Your task to perform on an android device: Check my gmail inbox Image 0: 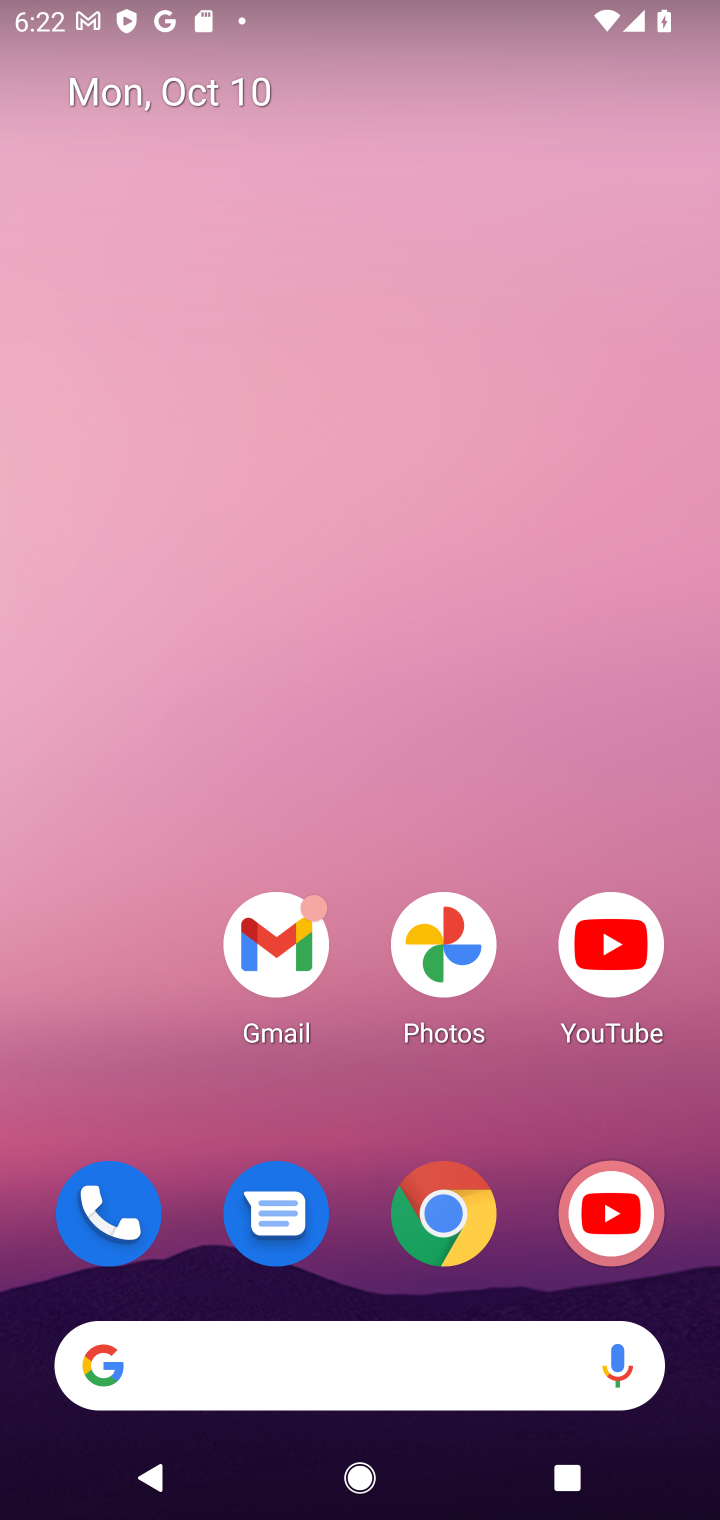
Step 0: drag from (367, 956) to (341, 433)
Your task to perform on an android device: Check my gmail inbox Image 1: 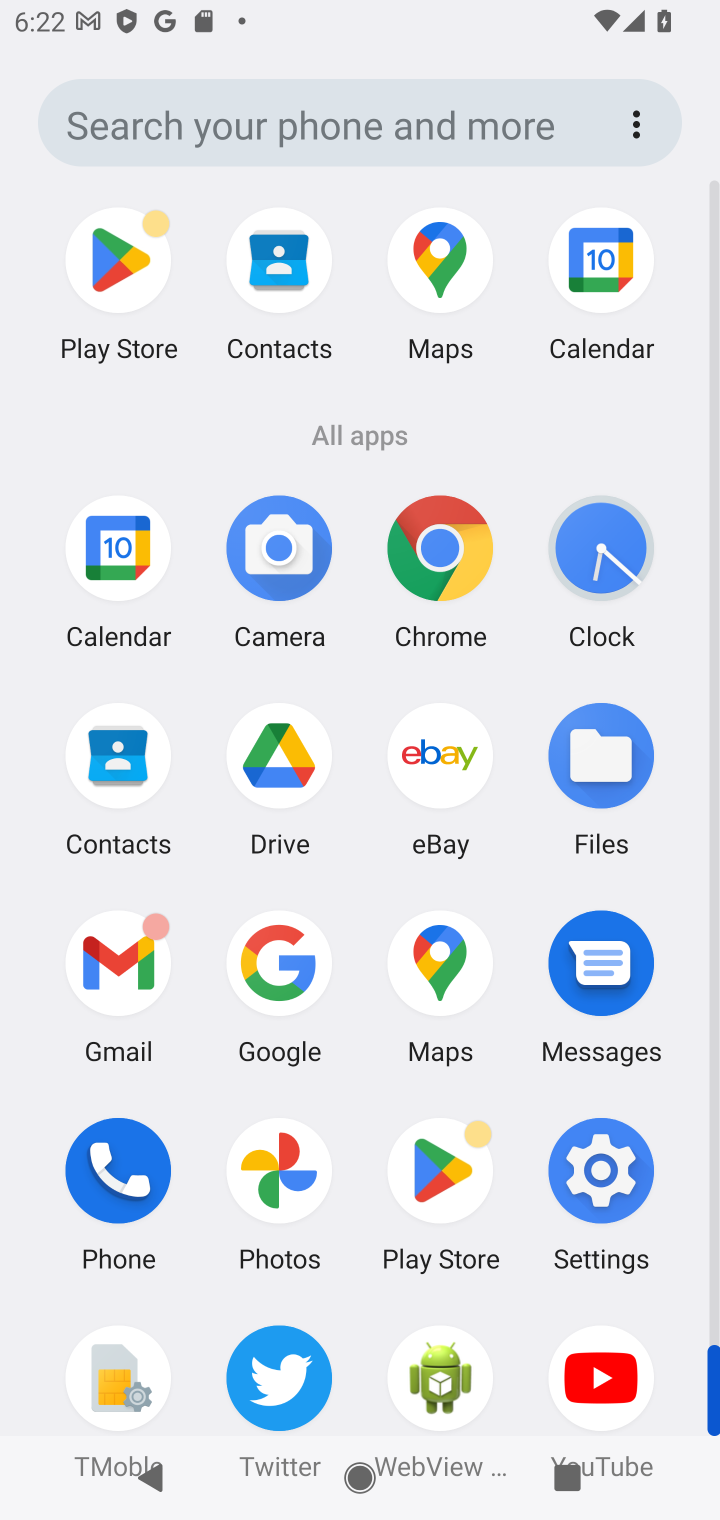
Step 1: click (138, 936)
Your task to perform on an android device: Check my gmail inbox Image 2: 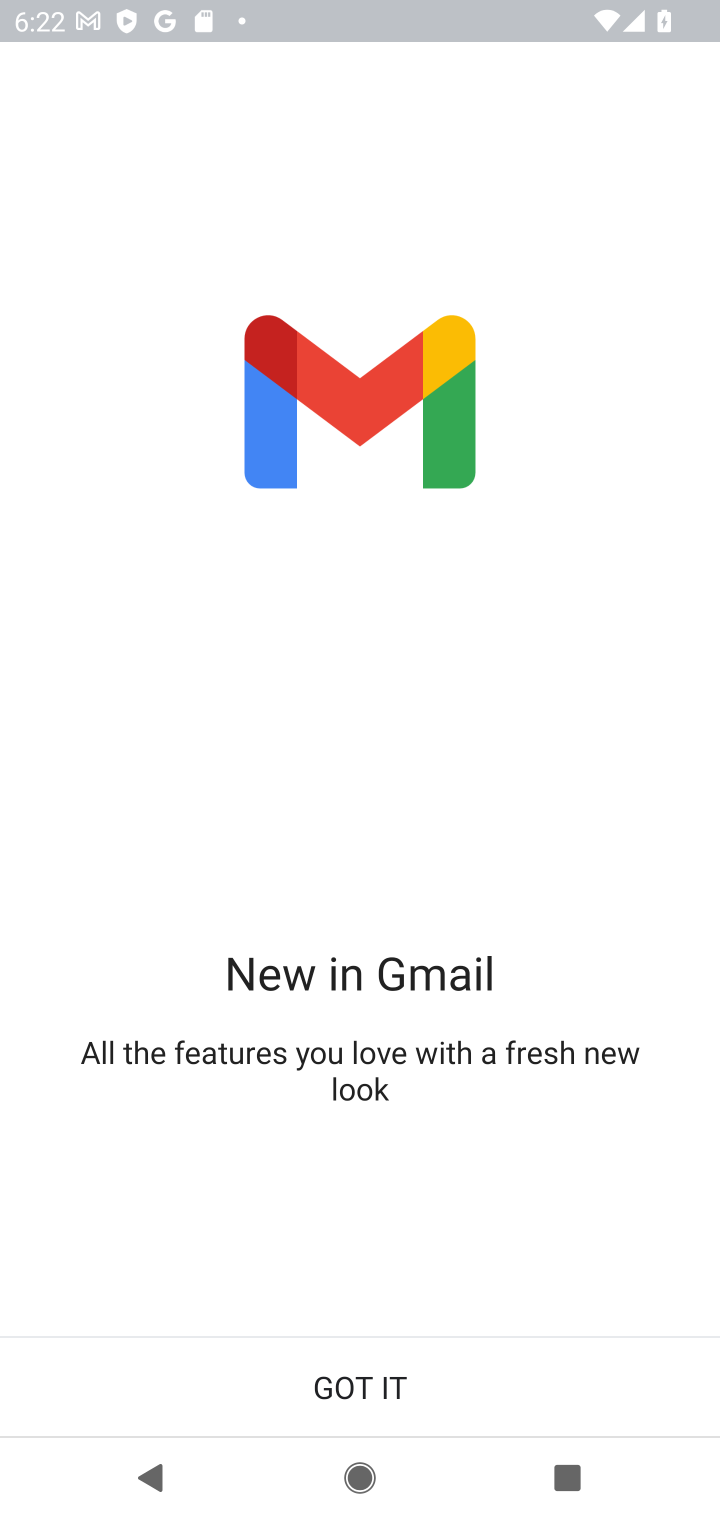
Step 2: click (368, 1345)
Your task to perform on an android device: Check my gmail inbox Image 3: 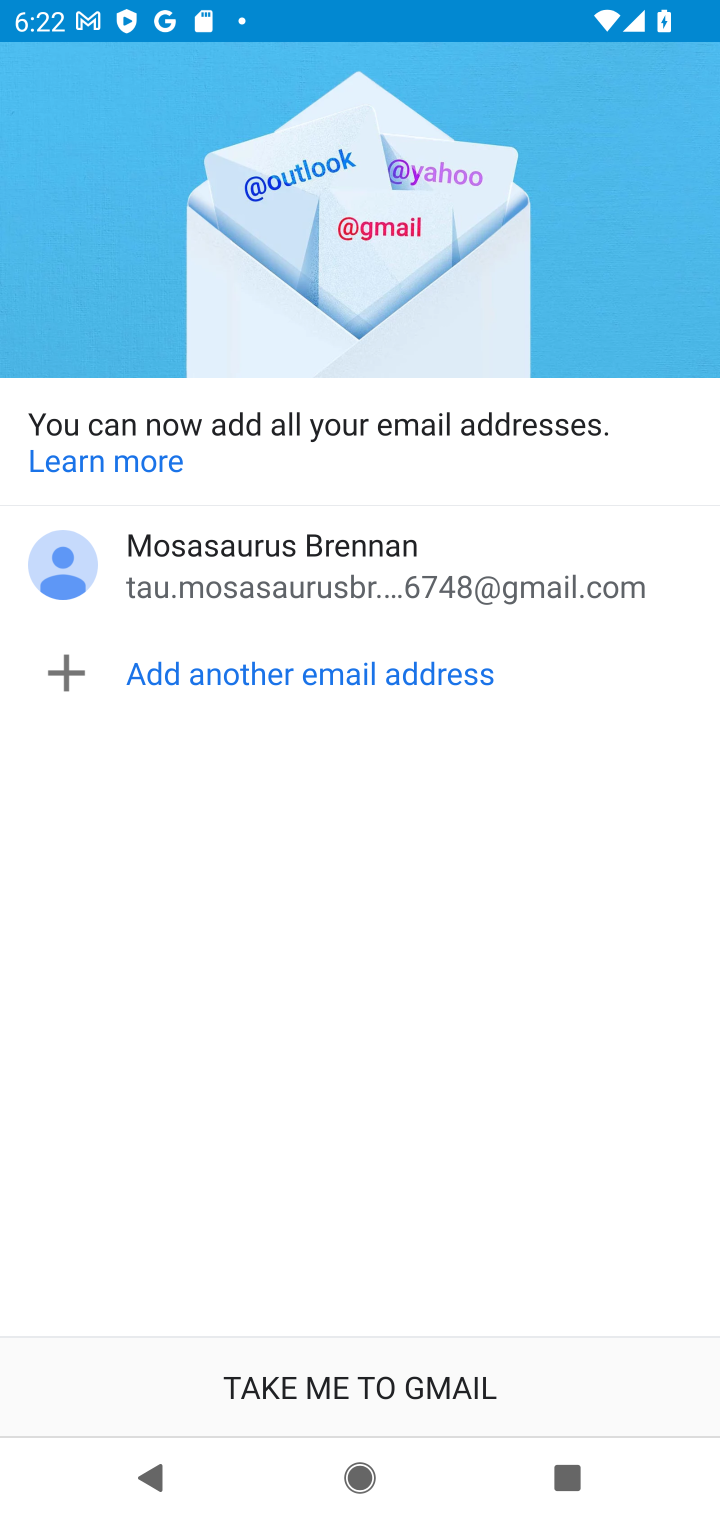
Step 3: click (371, 1357)
Your task to perform on an android device: Check my gmail inbox Image 4: 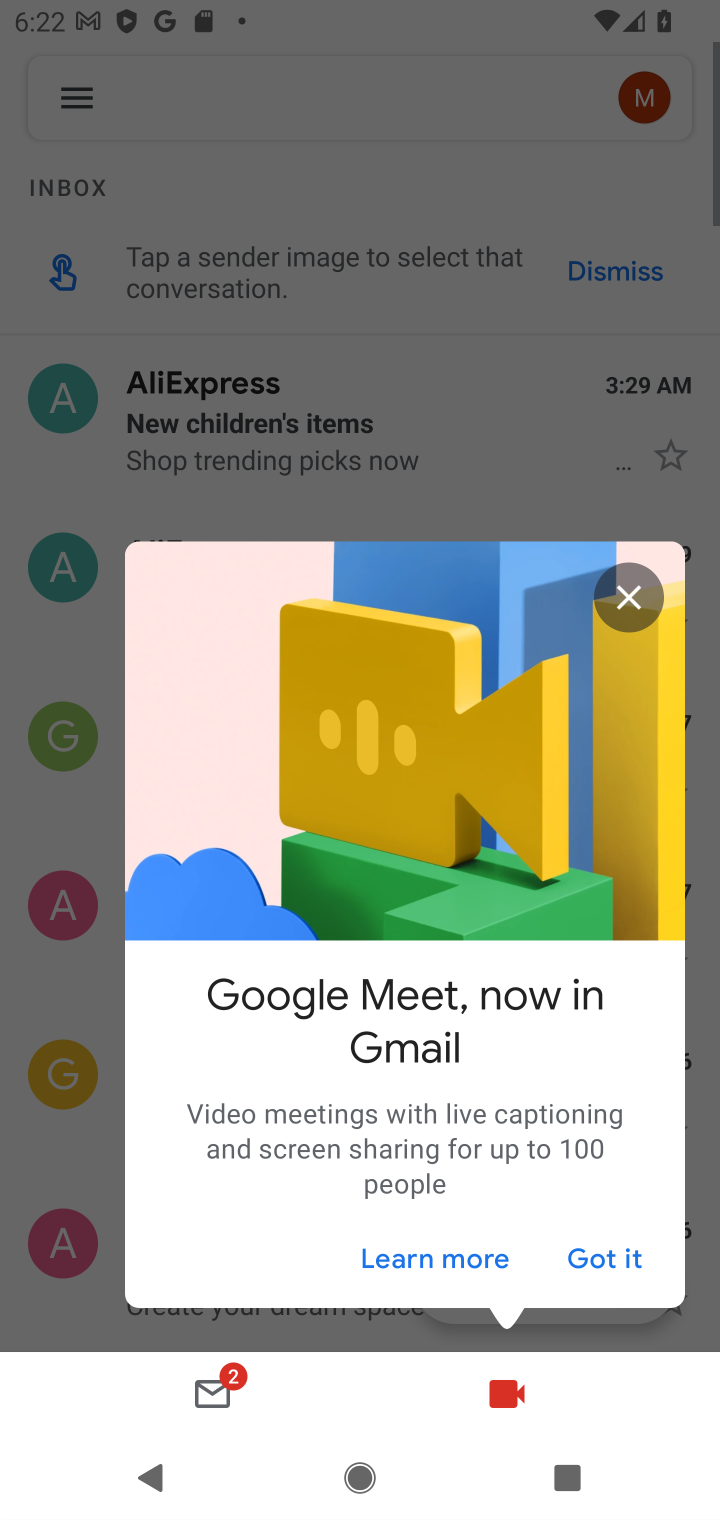
Step 4: click (585, 1285)
Your task to perform on an android device: Check my gmail inbox Image 5: 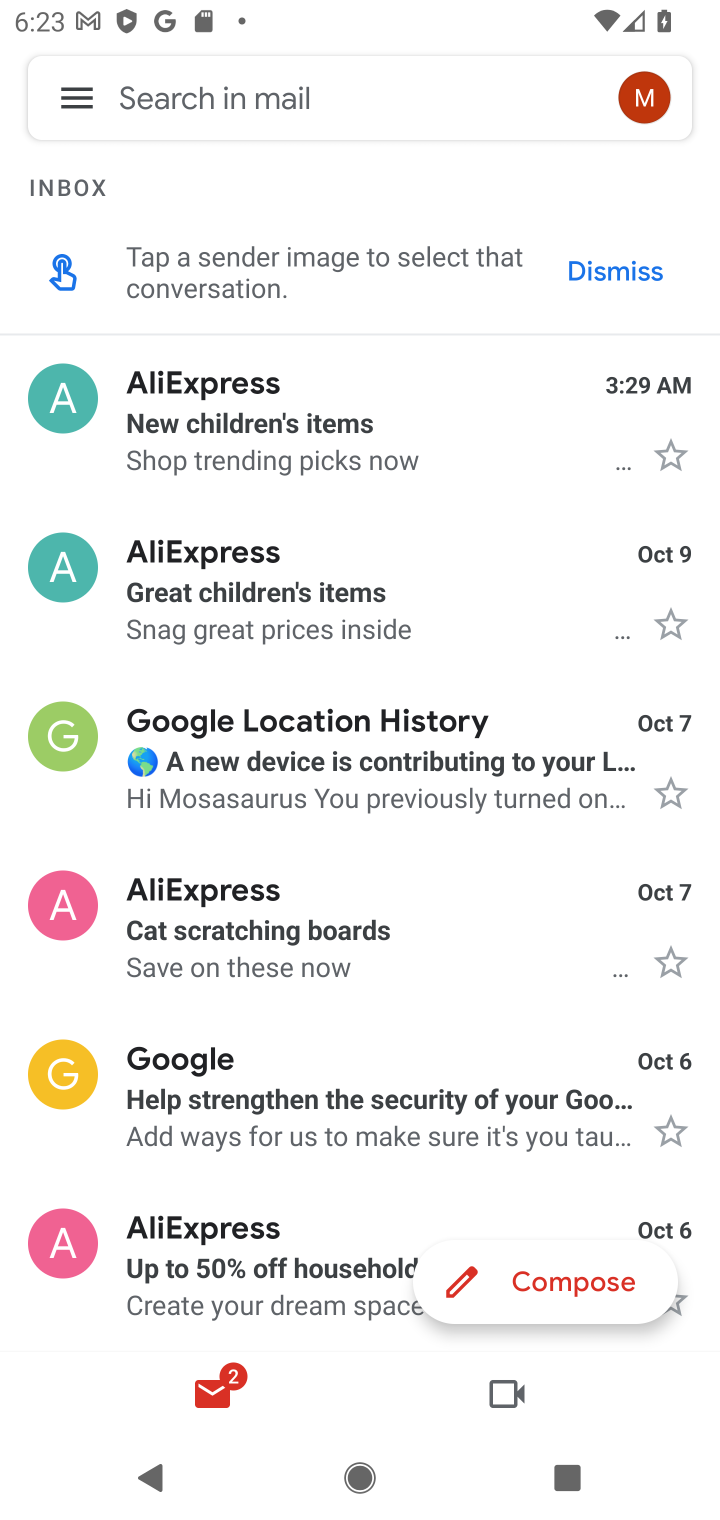
Step 5: task complete